Your task to perform on an android device: change notifications settings Image 0: 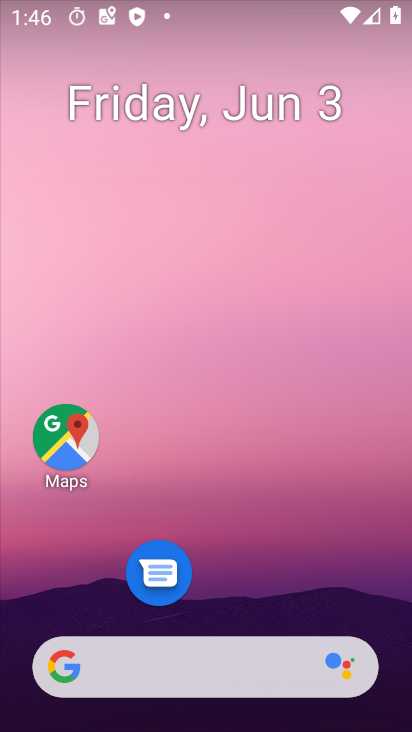
Step 0: drag from (301, 667) to (300, 3)
Your task to perform on an android device: change notifications settings Image 1: 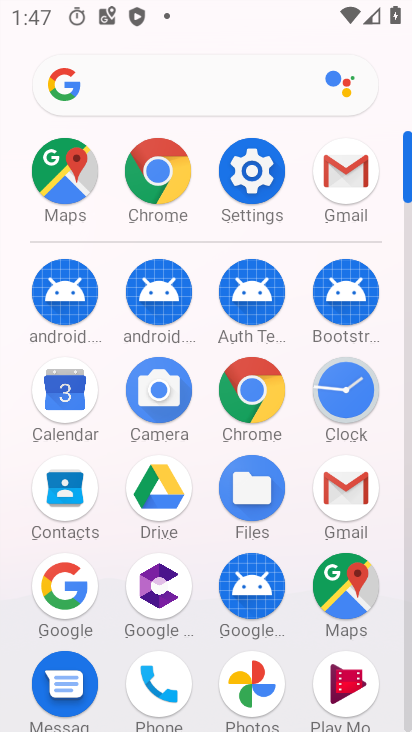
Step 1: click (250, 161)
Your task to perform on an android device: change notifications settings Image 2: 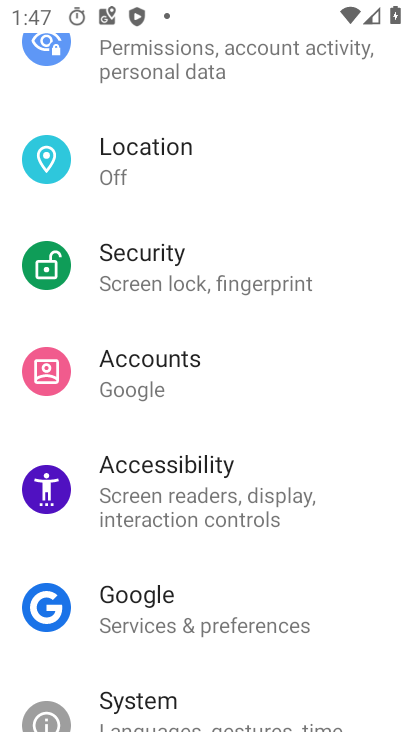
Step 2: drag from (231, 204) to (250, 721)
Your task to perform on an android device: change notifications settings Image 3: 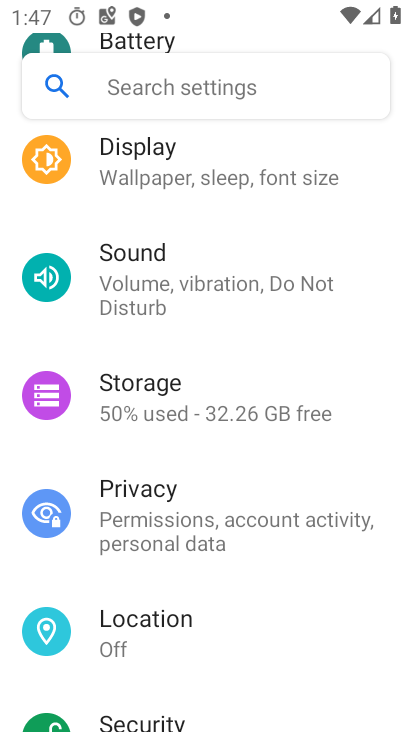
Step 3: drag from (234, 248) to (238, 582)
Your task to perform on an android device: change notifications settings Image 4: 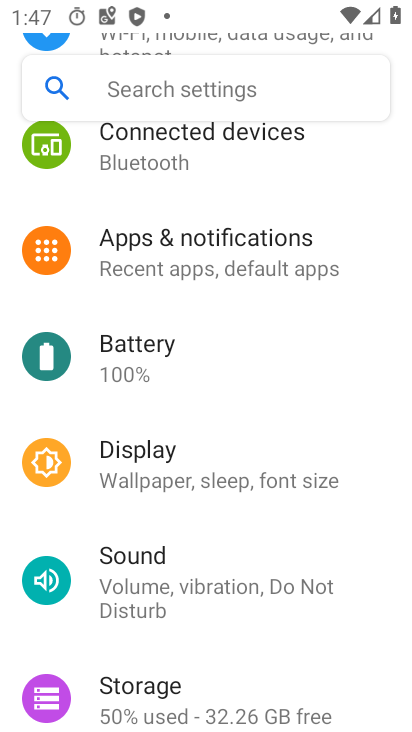
Step 4: click (203, 266)
Your task to perform on an android device: change notifications settings Image 5: 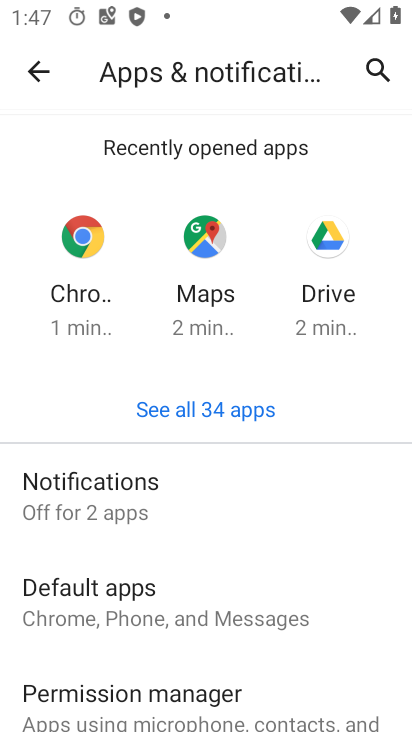
Step 5: click (184, 495)
Your task to perform on an android device: change notifications settings Image 6: 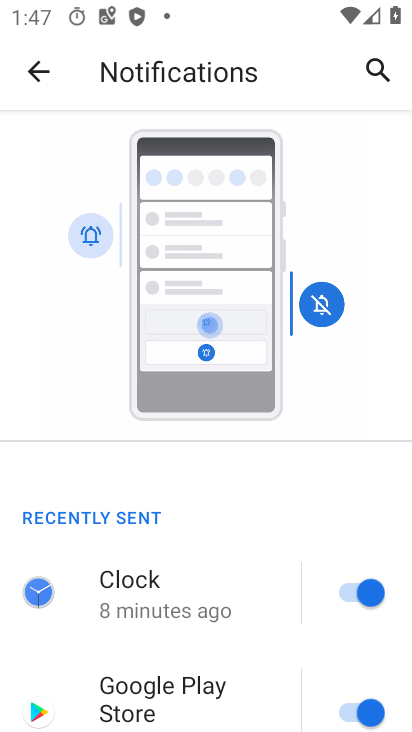
Step 6: click (361, 592)
Your task to perform on an android device: change notifications settings Image 7: 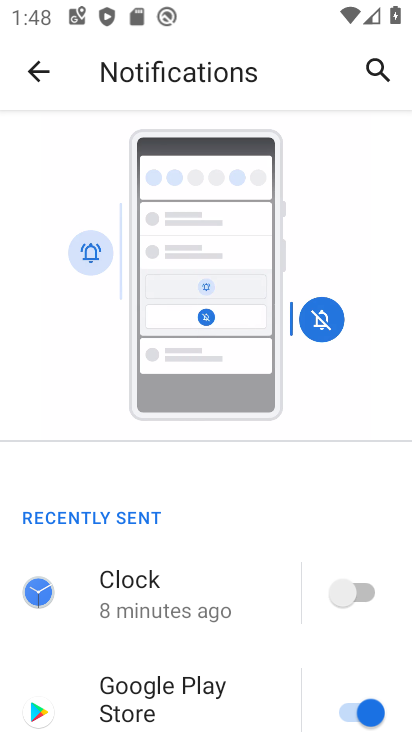
Step 7: task complete